Your task to perform on an android device: visit the assistant section in the google photos Image 0: 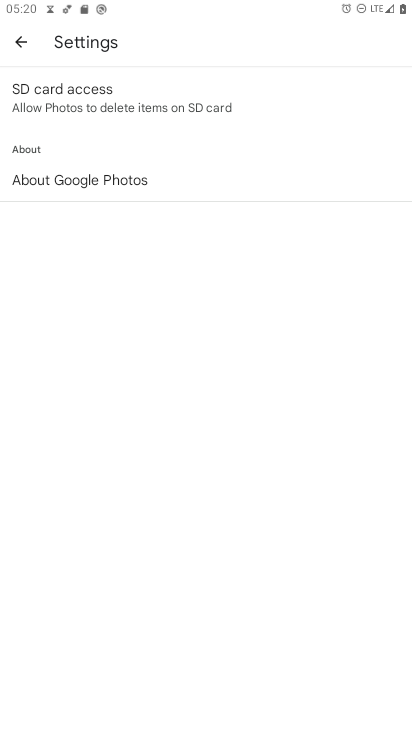
Step 0: press home button
Your task to perform on an android device: visit the assistant section in the google photos Image 1: 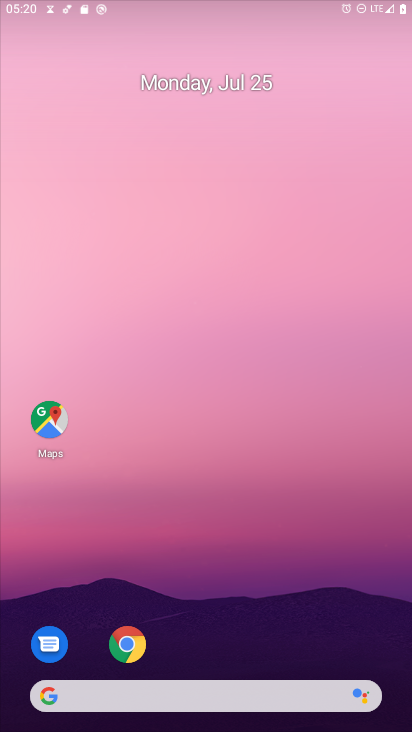
Step 1: drag from (246, 631) to (249, 150)
Your task to perform on an android device: visit the assistant section in the google photos Image 2: 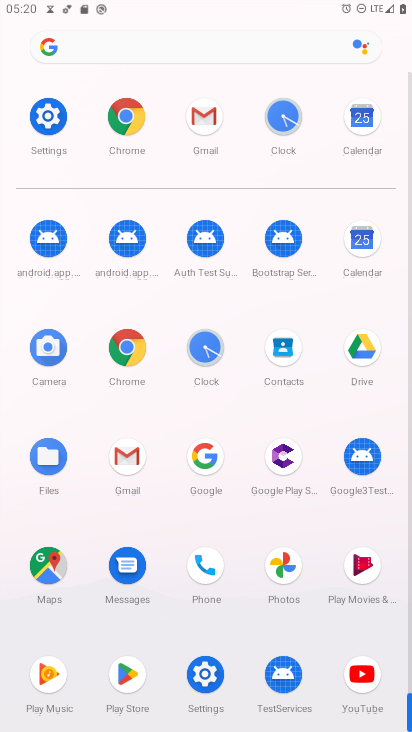
Step 2: click (289, 563)
Your task to perform on an android device: visit the assistant section in the google photos Image 3: 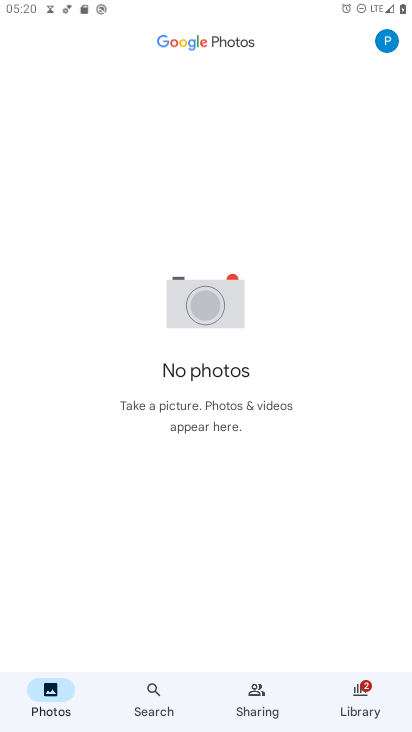
Step 3: task complete